Your task to perform on an android device: Go to Google maps Image 0: 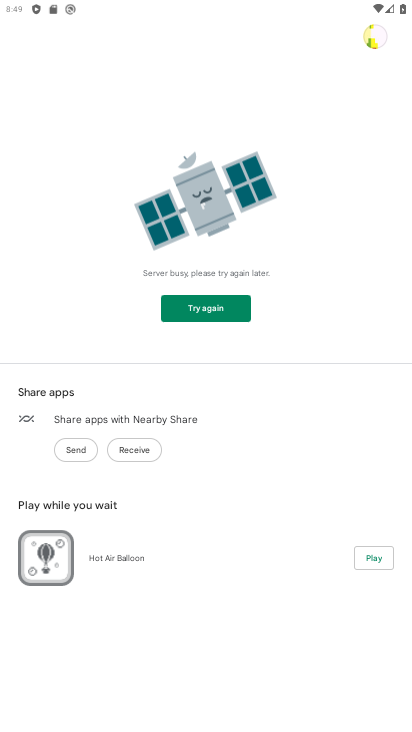
Step 0: press back button
Your task to perform on an android device: Go to Google maps Image 1: 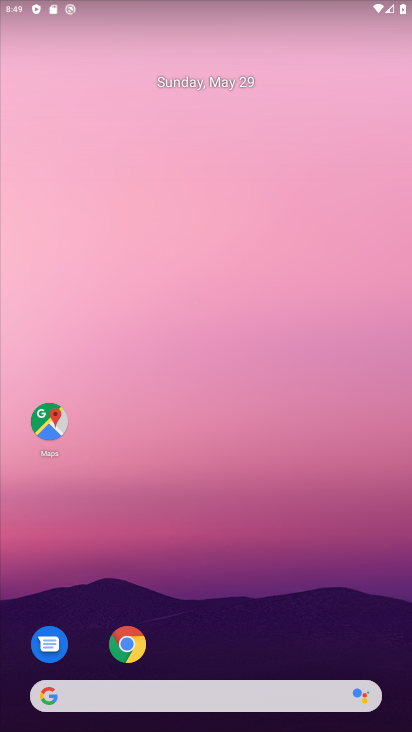
Step 1: drag from (203, 450) to (190, 21)
Your task to perform on an android device: Go to Google maps Image 2: 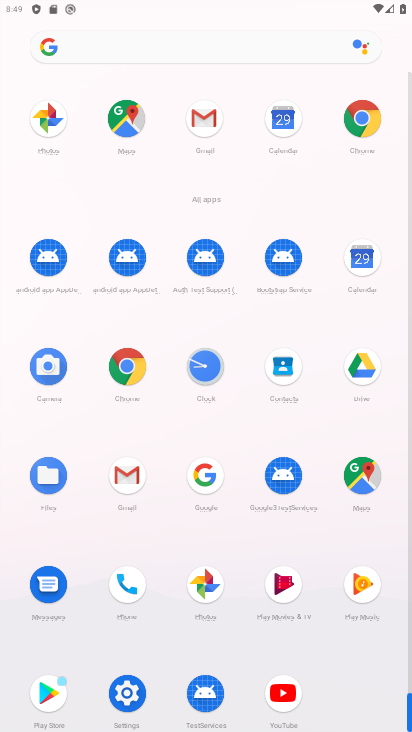
Step 2: click (357, 471)
Your task to perform on an android device: Go to Google maps Image 3: 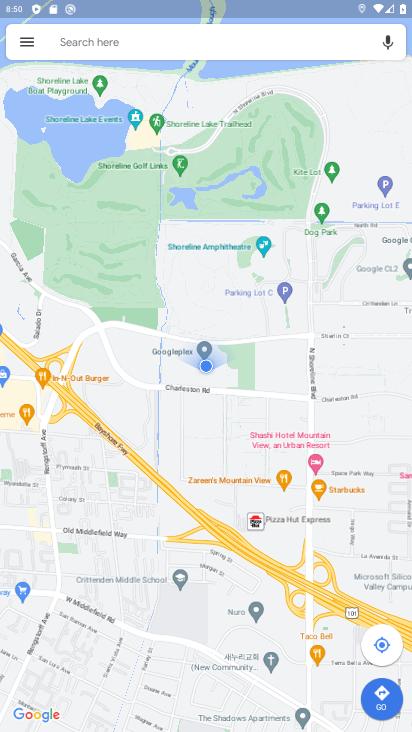
Step 3: task complete